Your task to perform on an android device: Open the Play Movies app and select the watchlist tab. Image 0: 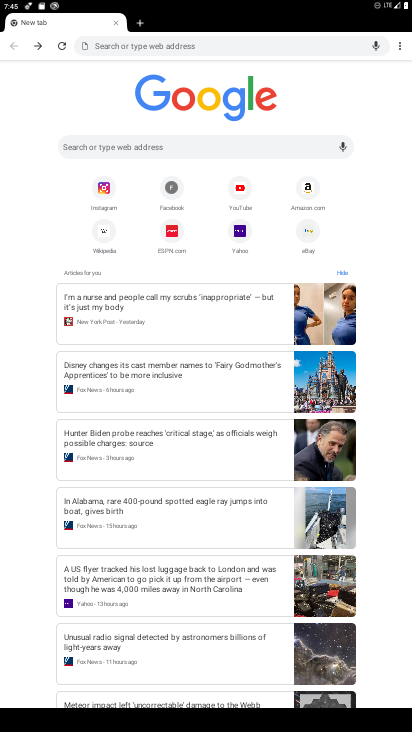
Step 0: press home button
Your task to perform on an android device: Open the Play Movies app and select the watchlist tab. Image 1: 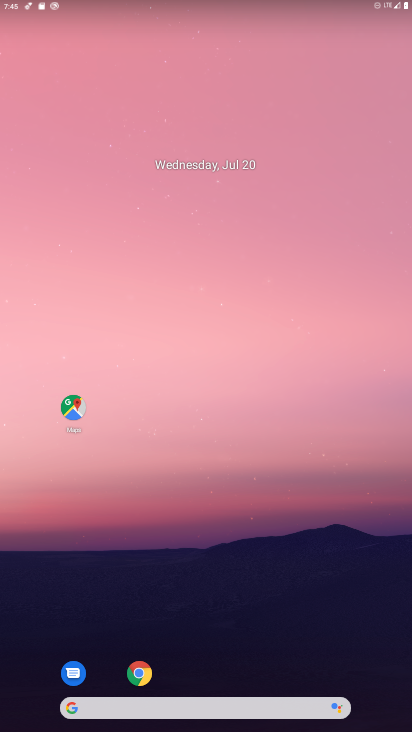
Step 1: drag from (260, 527) to (233, 61)
Your task to perform on an android device: Open the Play Movies app and select the watchlist tab. Image 2: 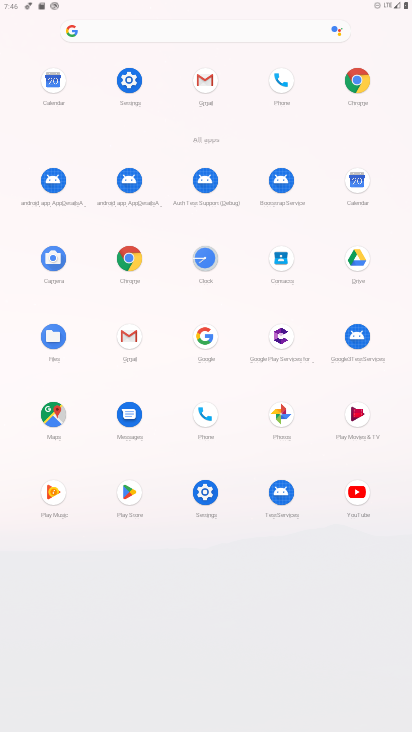
Step 2: click (355, 427)
Your task to perform on an android device: Open the Play Movies app and select the watchlist tab. Image 3: 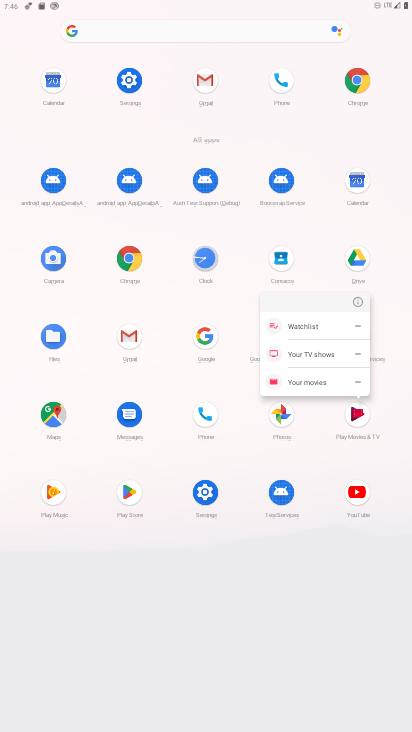
Step 3: click (355, 424)
Your task to perform on an android device: Open the Play Movies app and select the watchlist tab. Image 4: 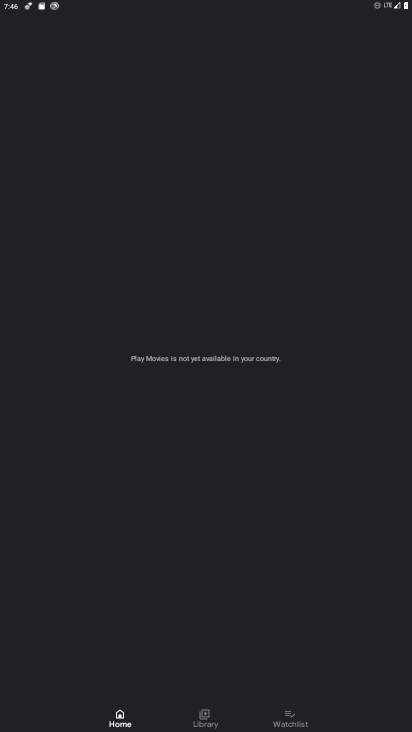
Step 4: click (296, 715)
Your task to perform on an android device: Open the Play Movies app and select the watchlist tab. Image 5: 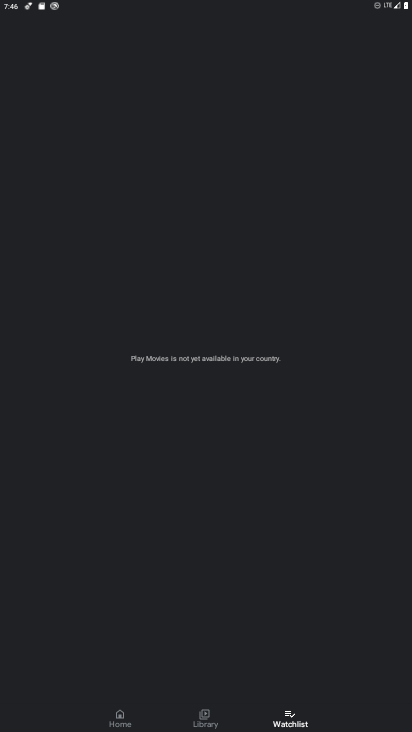
Step 5: task complete